Your task to perform on an android device: open chrome and create a bookmark for the current page Image 0: 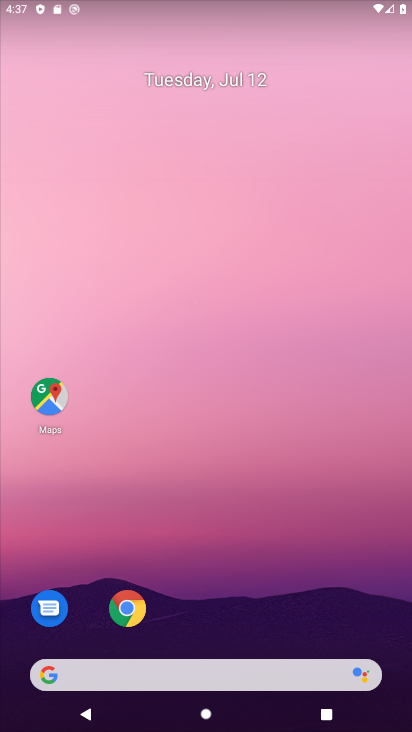
Step 0: click (129, 617)
Your task to perform on an android device: open chrome and create a bookmark for the current page Image 1: 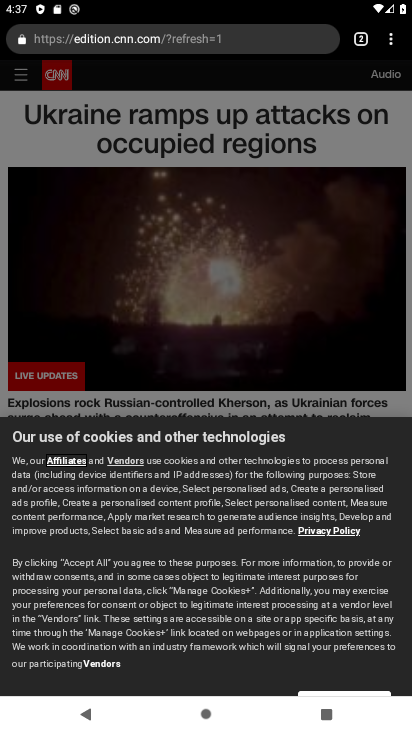
Step 1: click (390, 41)
Your task to perform on an android device: open chrome and create a bookmark for the current page Image 2: 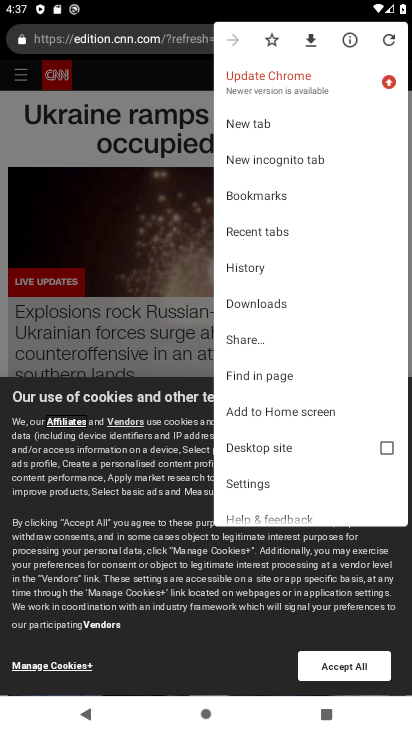
Step 2: click (269, 41)
Your task to perform on an android device: open chrome and create a bookmark for the current page Image 3: 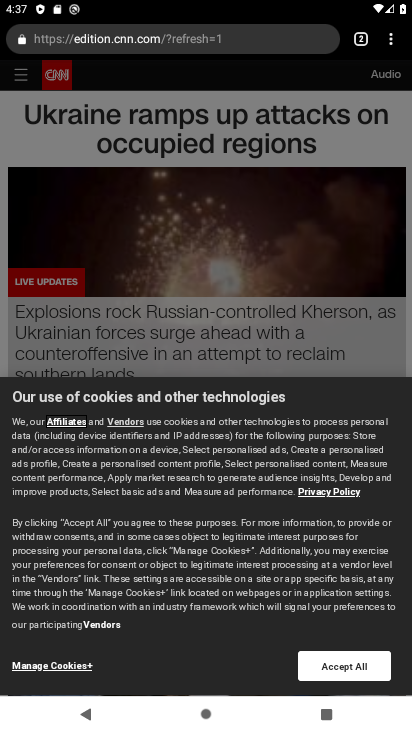
Step 3: click (397, 30)
Your task to perform on an android device: open chrome and create a bookmark for the current page Image 4: 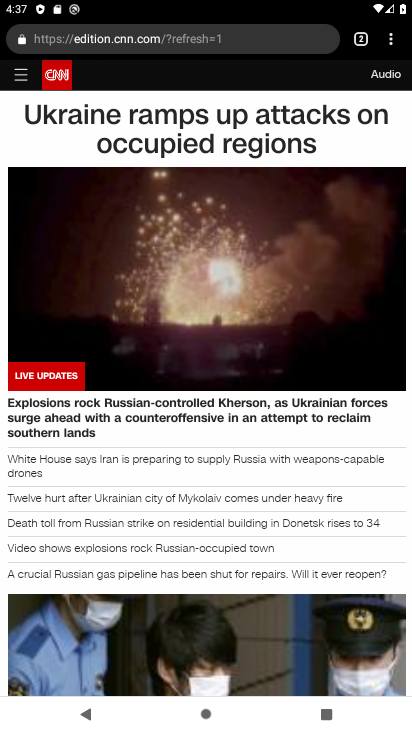
Step 4: click (387, 41)
Your task to perform on an android device: open chrome and create a bookmark for the current page Image 5: 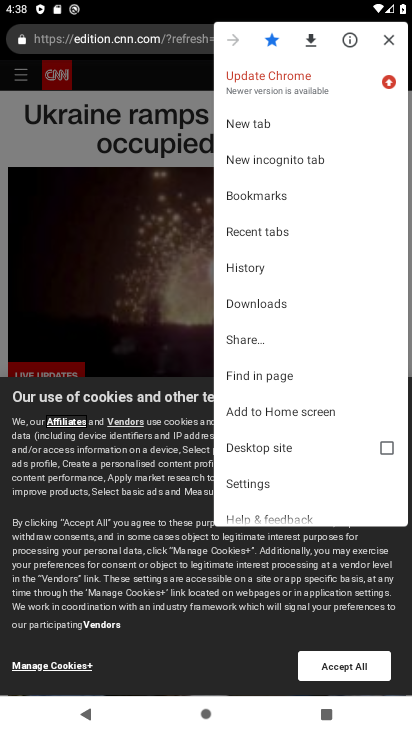
Step 5: task complete